Your task to perform on an android device: open the mobile data screen to see how much data has been used Image 0: 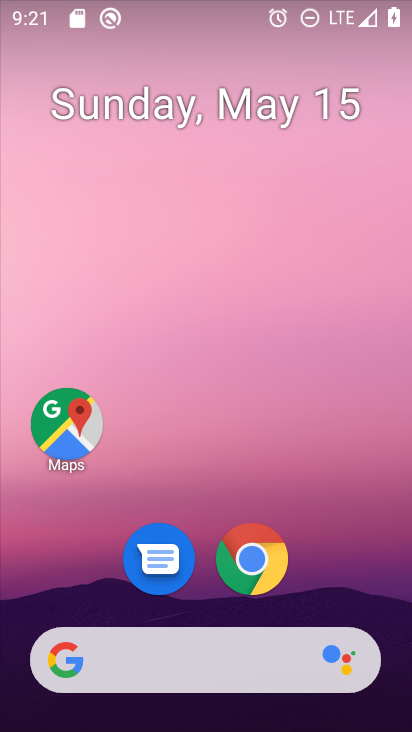
Step 0: drag from (354, 577) to (356, 273)
Your task to perform on an android device: open the mobile data screen to see how much data has been used Image 1: 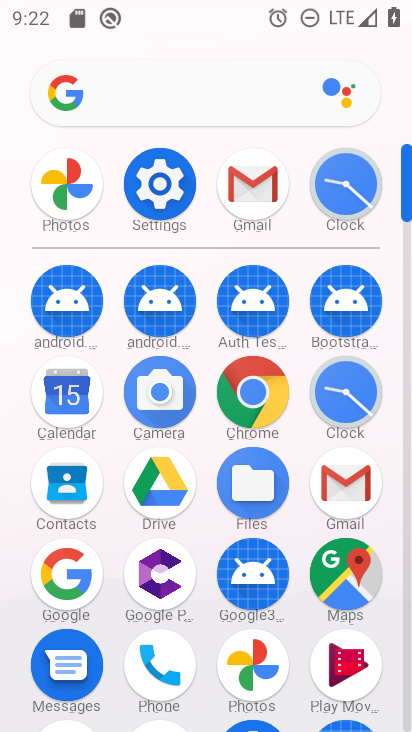
Step 1: click (147, 208)
Your task to perform on an android device: open the mobile data screen to see how much data has been used Image 2: 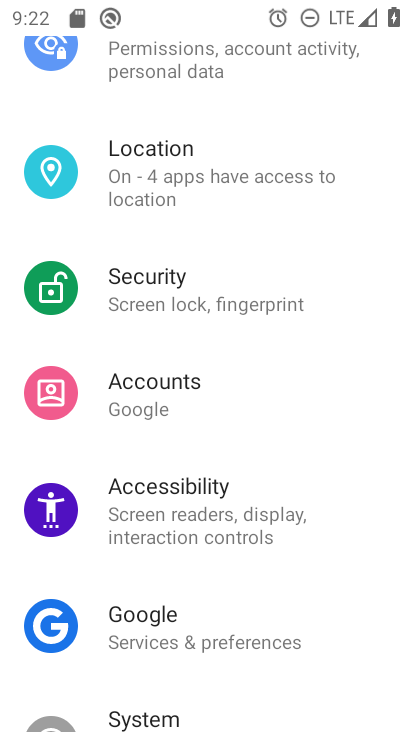
Step 2: drag from (275, 265) to (274, 656)
Your task to perform on an android device: open the mobile data screen to see how much data has been used Image 3: 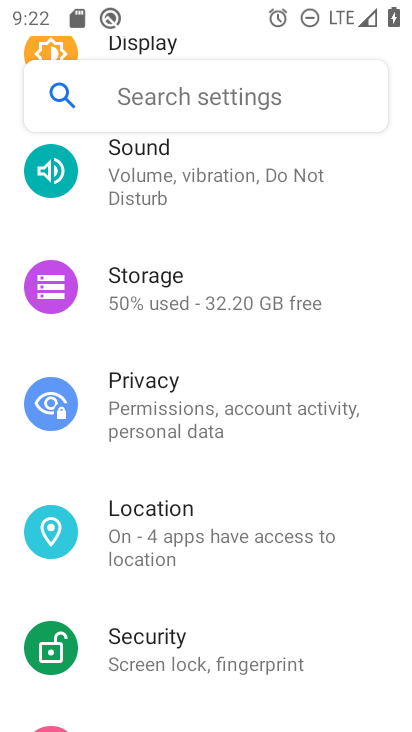
Step 3: drag from (274, 339) to (302, 708)
Your task to perform on an android device: open the mobile data screen to see how much data has been used Image 4: 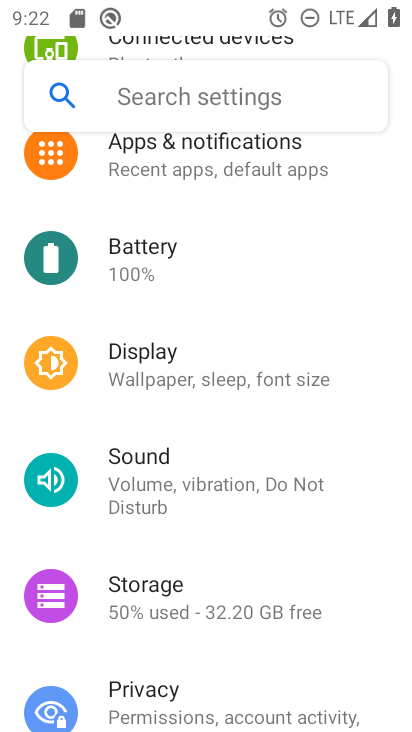
Step 4: drag from (283, 289) to (283, 707)
Your task to perform on an android device: open the mobile data screen to see how much data has been used Image 5: 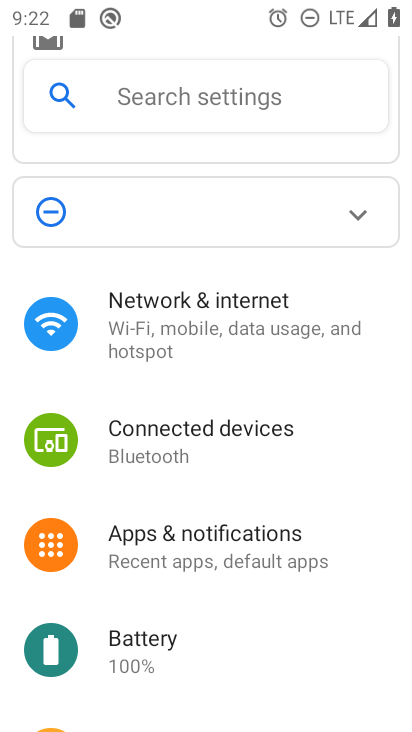
Step 5: click (277, 348)
Your task to perform on an android device: open the mobile data screen to see how much data has been used Image 6: 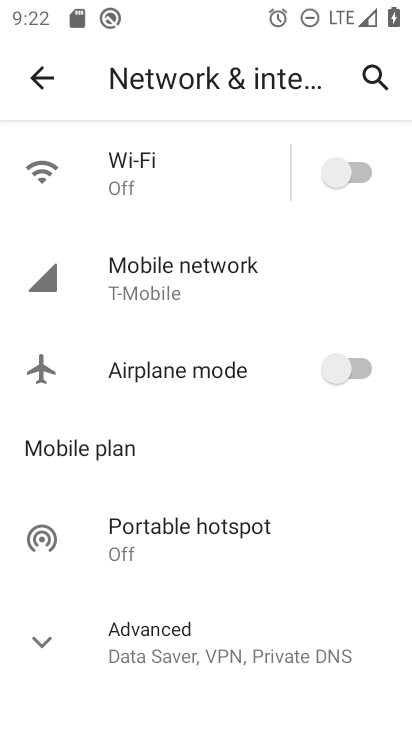
Step 6: click (199, 272)
Your task to perform on an android device: open the mobile data screen to see how much data has been used Image 7: 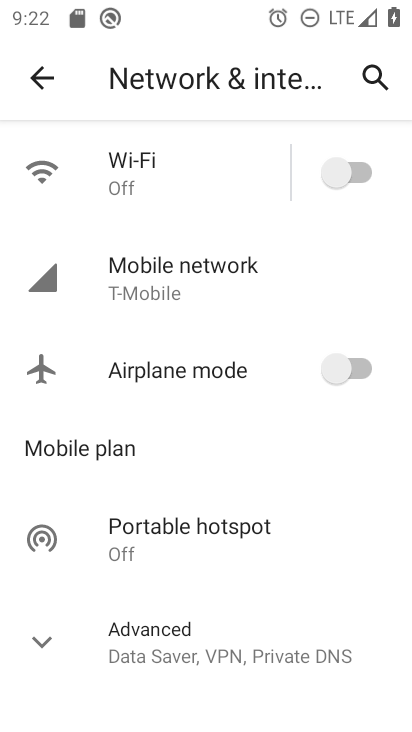
Step 7: task complete